Your task to perform on an android device: Open the stopwatch Image 0: 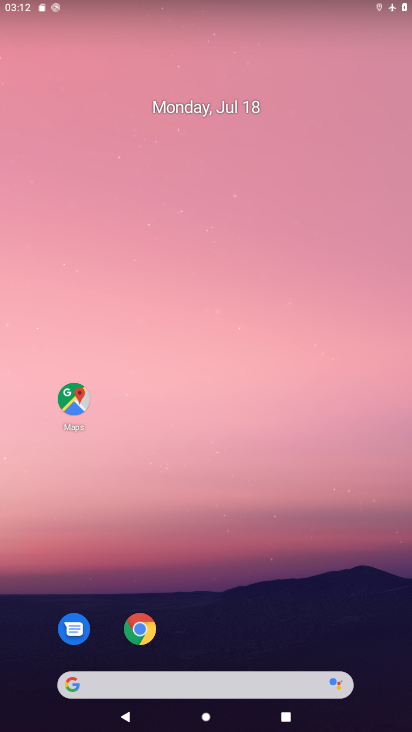
Step 0: drag from (334, 571) to (365, 140)
Your task to perform on an android device: Open the stopwatch Image 1: 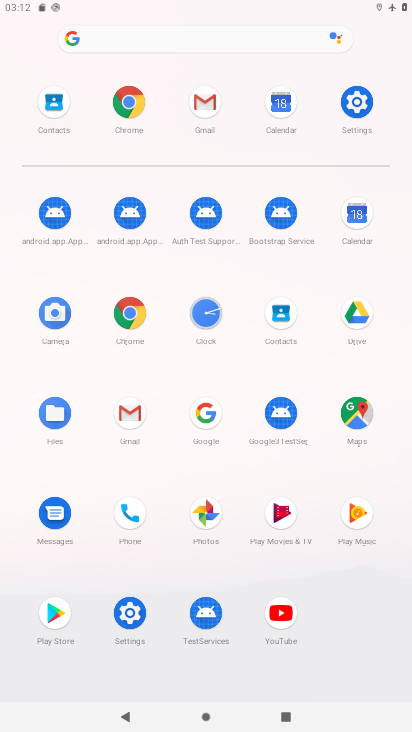
Step 1: click (201, 314)
Your task to perform on an android device: Open the stopwatch Image 2: 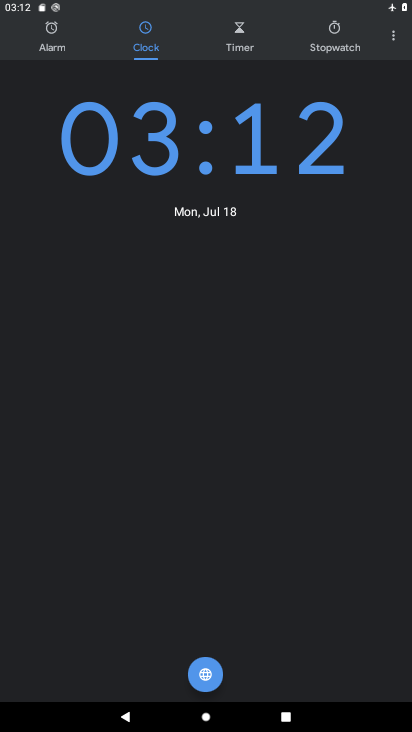
Step 2: click (326, 38)
Your task to perform on an android device: Open the stopwatch Image 3: 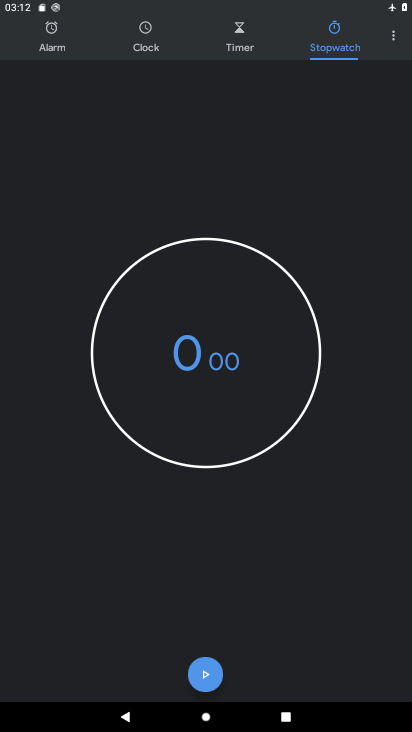
Step 3: task complete